Your task to perform on an android device: clear history in the chrome app Image 0: 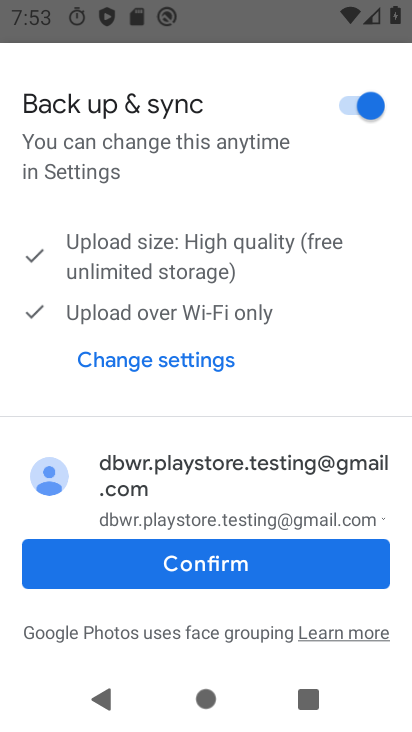
Step 0: press back button
Your task to perform on an android device: clear history in the chrome app Image 1: 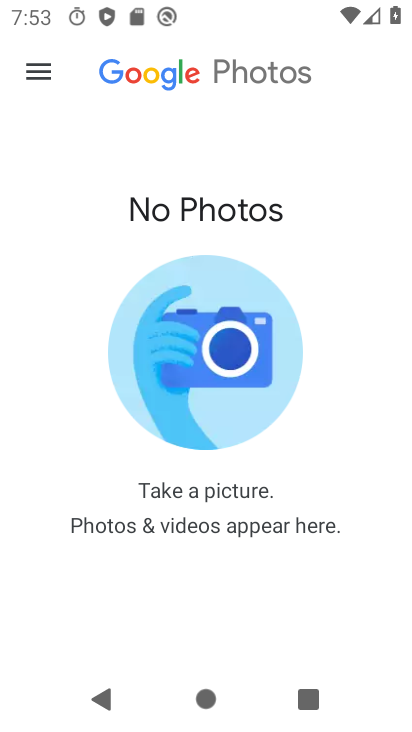
Step 1: press home button
Your task to perform on an android device: clear history in the chrome app Image 2: 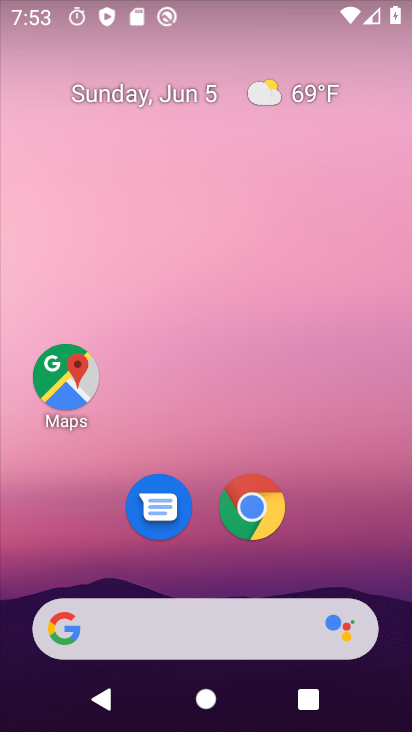
Step 2: click (251, 500)
Your task to perform on an android device: clear history in the chrome app Image 3: 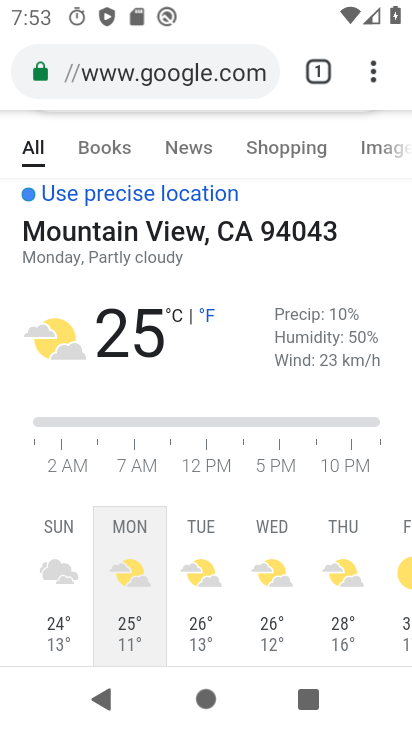
Step 3: click (168, 60)
Your task to perform on an android device: clear history in the chrome app Image 4: 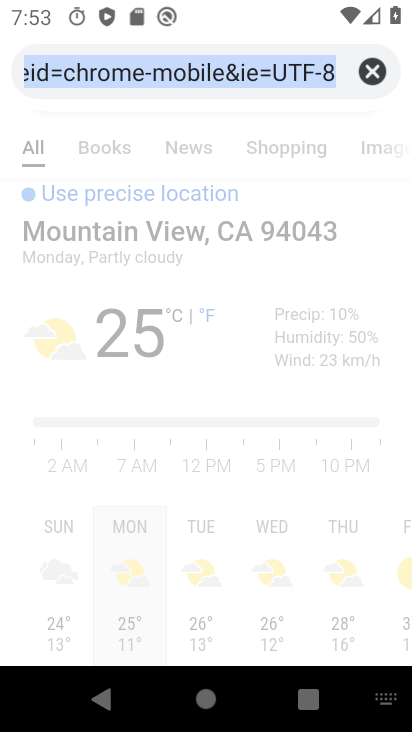
Step 4: click (368, 65)
Your task to perform on an android device: clear history in the chrome app Image 5: 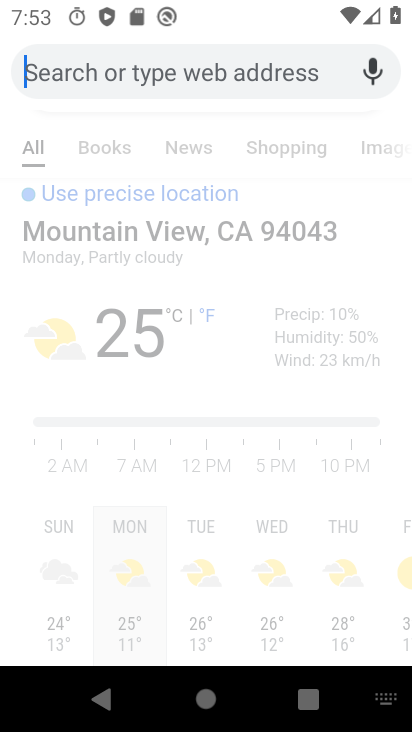
Step 5: click (227, 301)
Your task to perform on an android device: clear history in the chrome app Image 6: 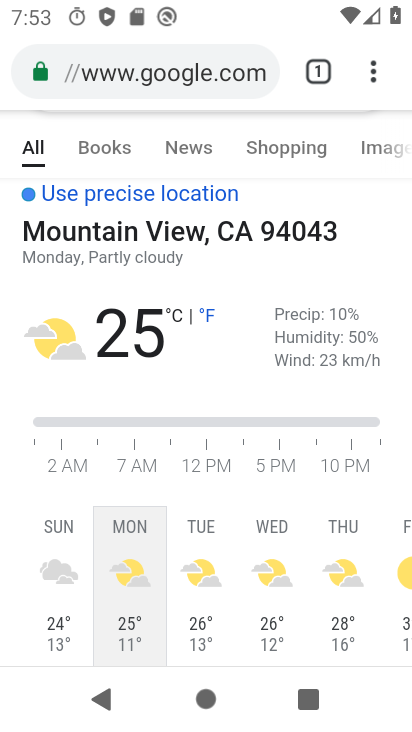
Step 6: drag from (371, 63) to (202, 493)
Your task to perform on an android device: clear history in the chrome app Image 7: 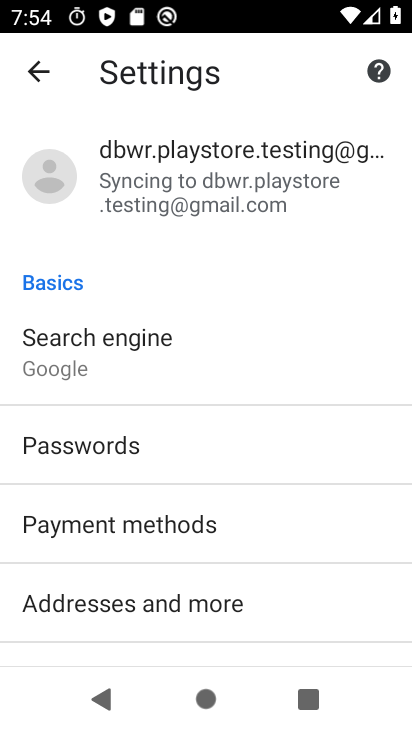
Step 7: drag from (259, 608) to (276, 178)
Your task to perform on an android device: clear history in the chrome app Image 8: 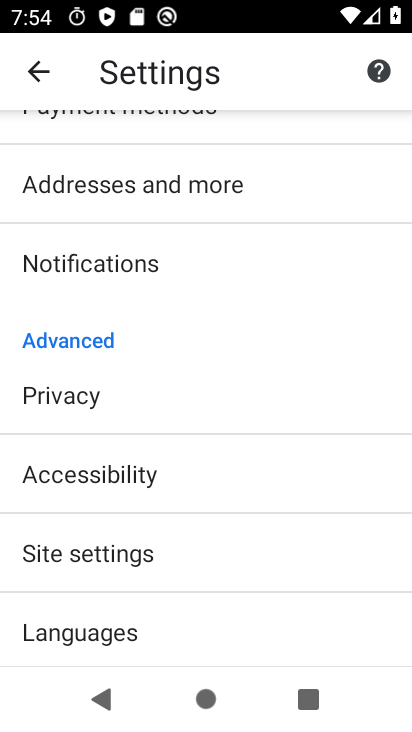
Step 8: click (32, 72)
Your task to perform on an android device: clear history in the chrome app Image 9: 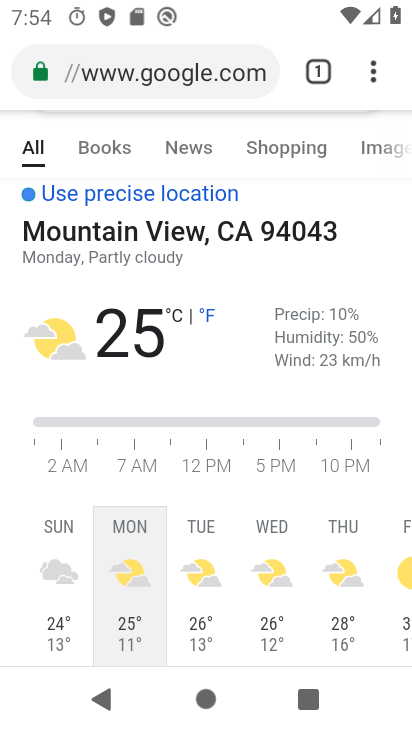
Step 9: drag from (371, 63) to (194, 376)
Your task to perform on an android device: clear history in the chrome app Image 10: 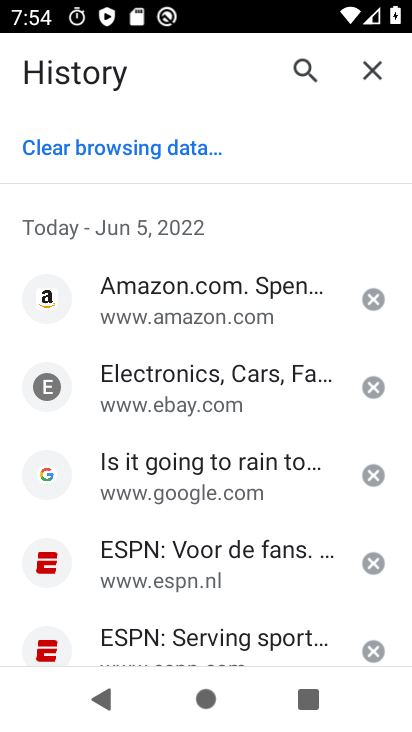
Step 10: click (153, 152)
Your task to perform on an android device: clear history in the chrome app Image 11: 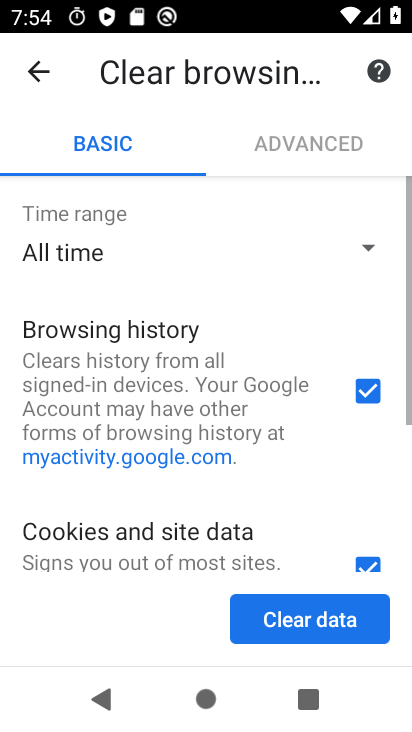
Step 11: click (327, 614)
Your task to perform on an android device: clear history in the chrome app Image 12: 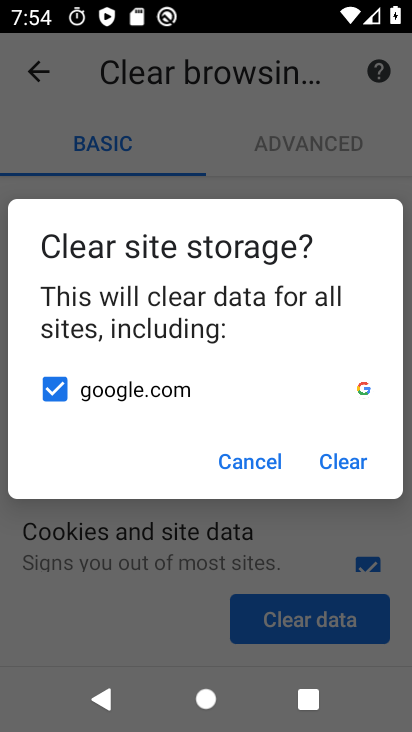
Step 12: click (356, 456)
Your task to perform on an android device: clear history in the chrome app Image 13: 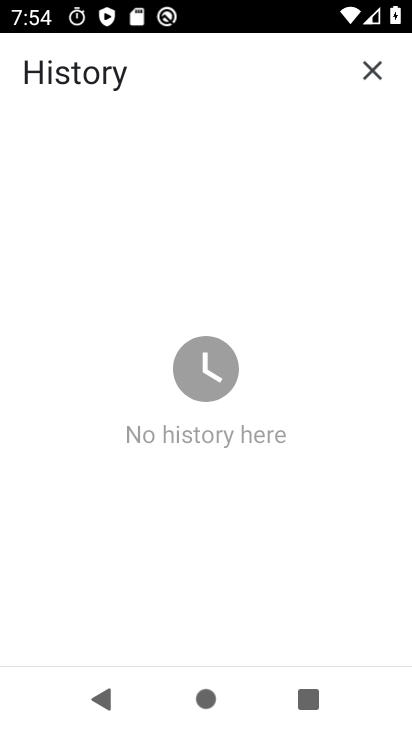
Step 13: task complete